Your task to perform on an android device: Open settings Image 0: 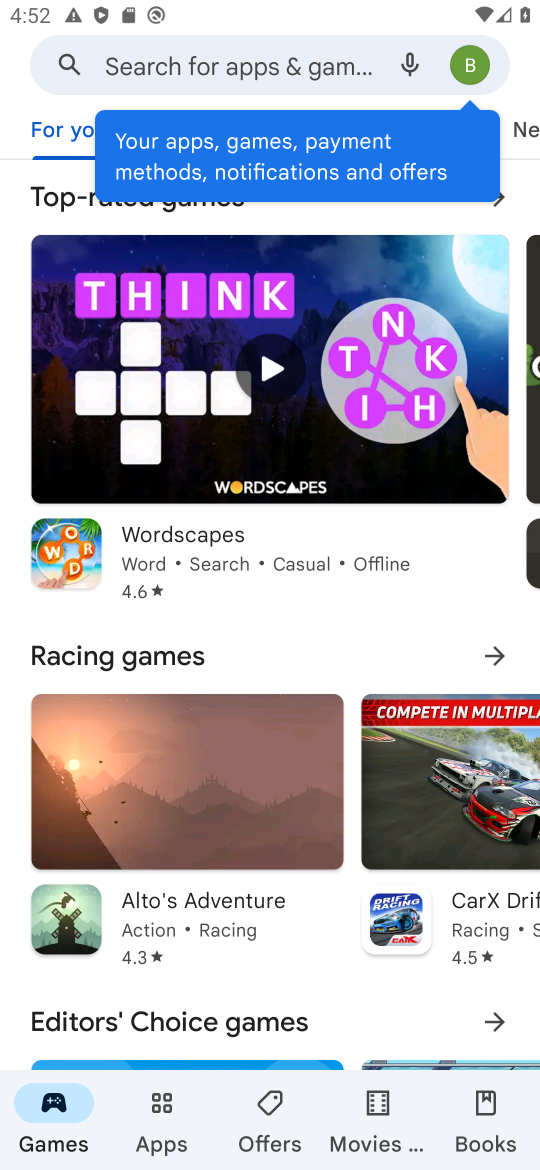
Step 0: press home button
Your task to perform on an android device: Open settings Image 1: 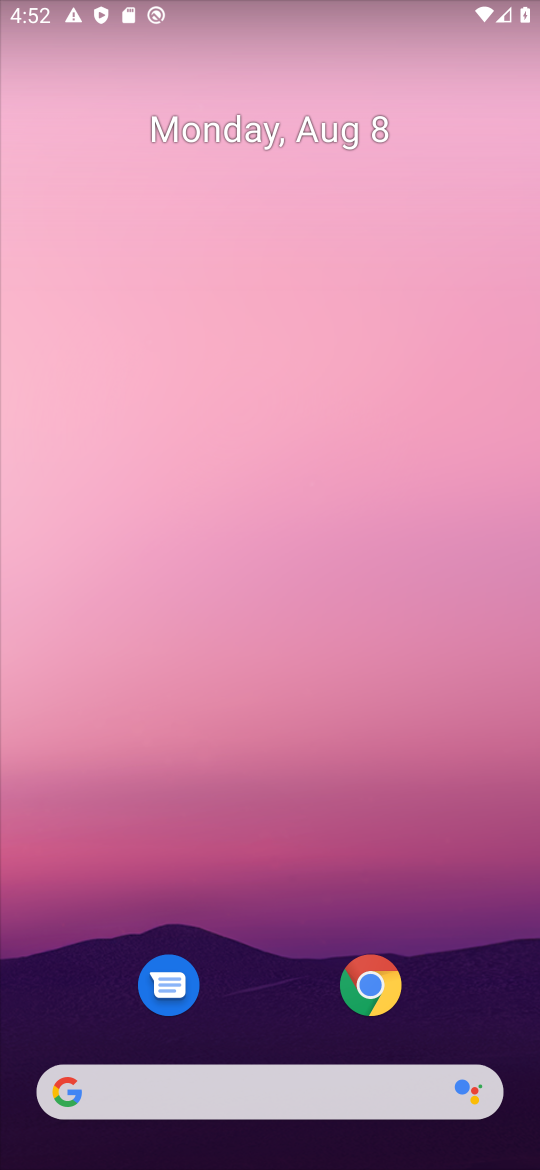
Step 1: drag from (280, 793) to (302, 299)
Your task to perform on an android device: Open settings Image 2: 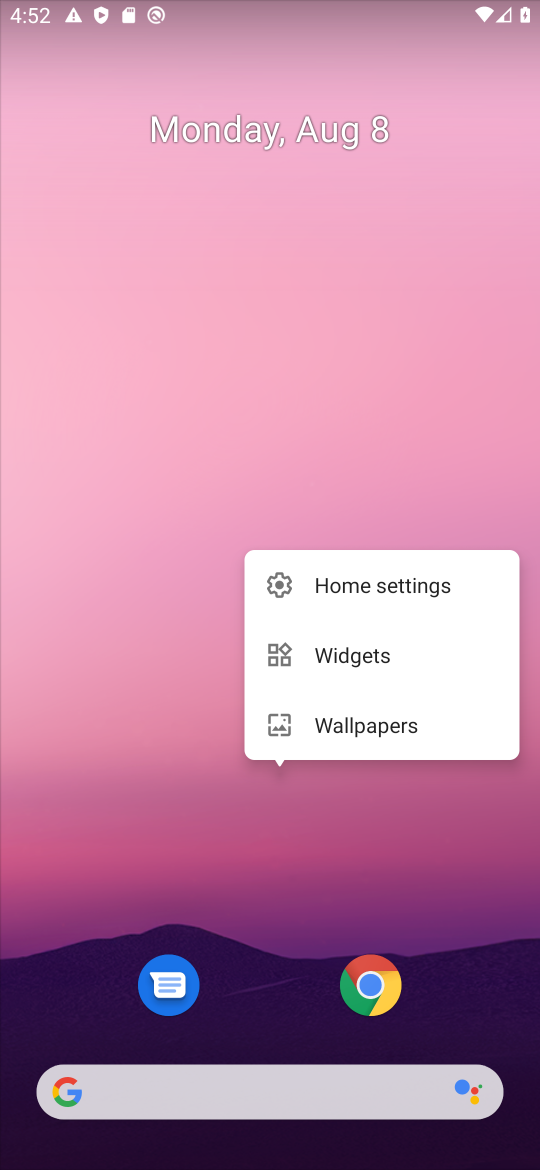
Step 2: click (127, 766)
Your task to perform on an android device: Open settings Image 3: 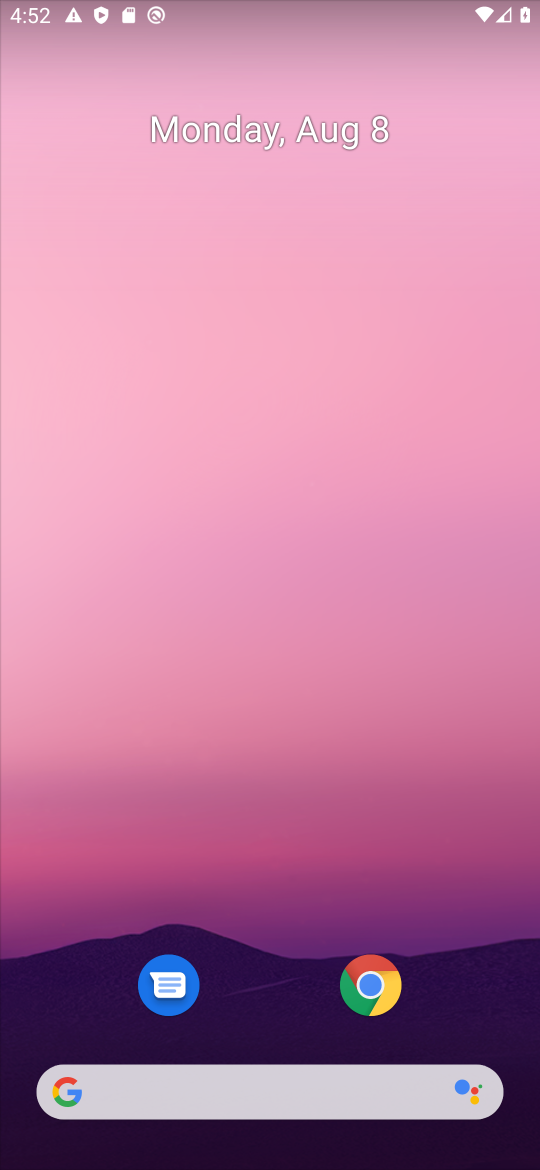
Step 3: drag from (271, 871) to (263, 89)
Your task to perform on an android device: Open settings Image 4: 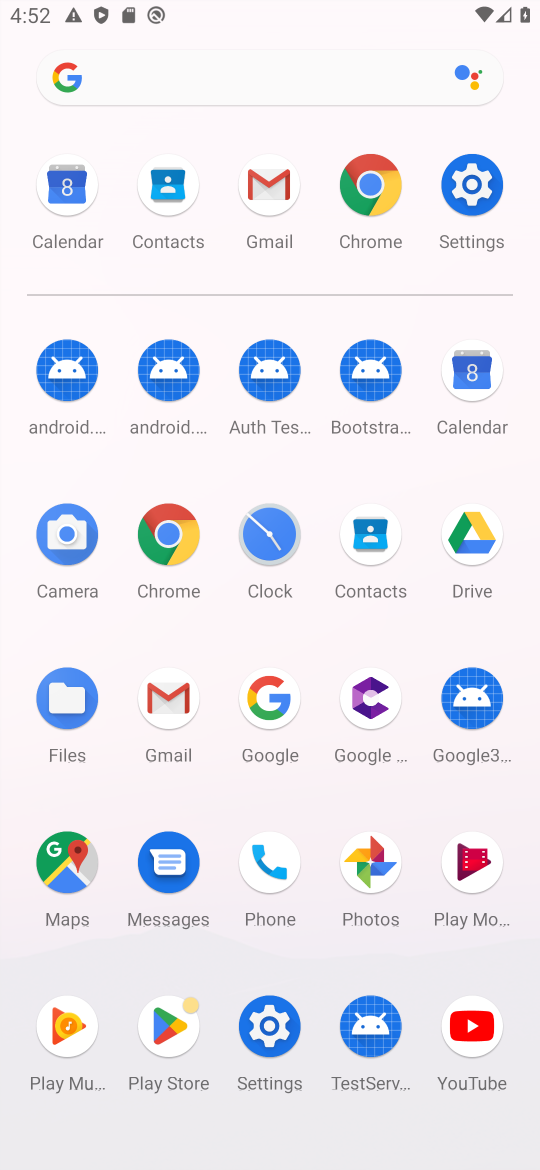
Step 4: click (467, 203)
Your task to perform on an android device: Open settings Image 5: 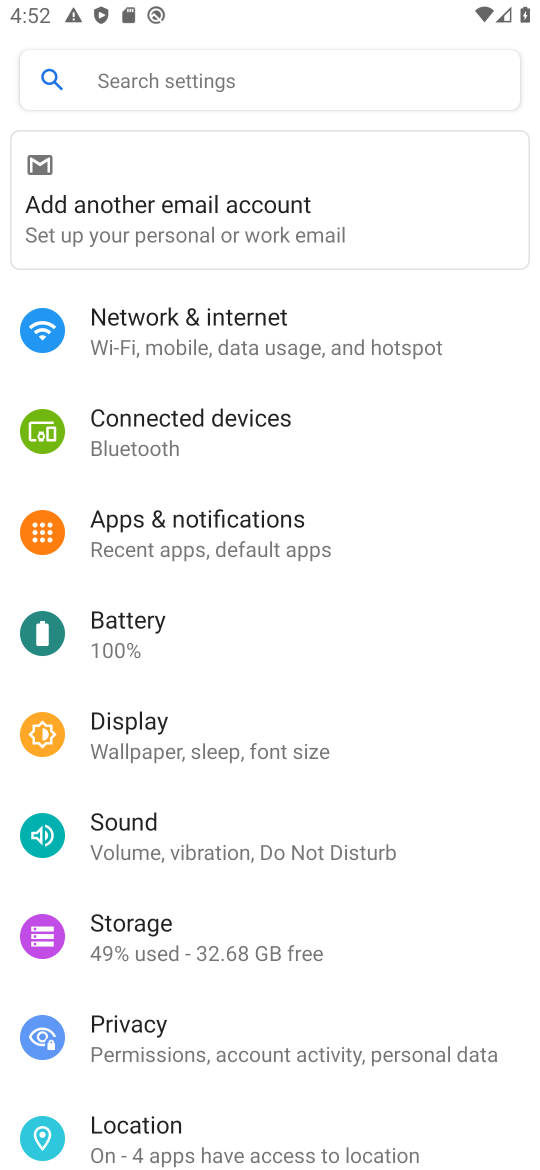
Step 5: task complete